Your task to perform on an android device: Go to Maps Image 0: 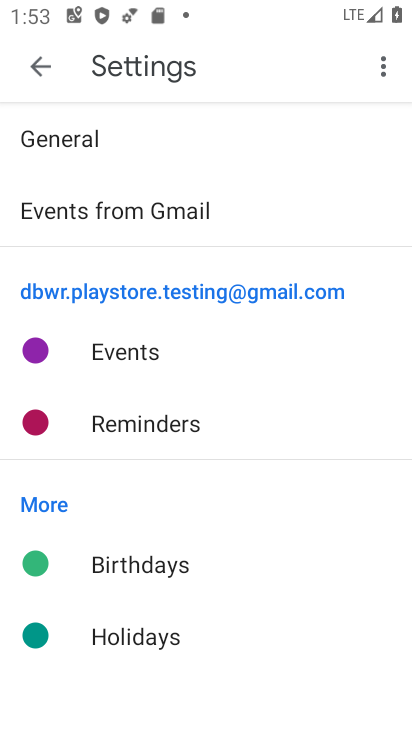
Step 0: press home button
Your task to perform on an android device: Go to Maps Image 1: 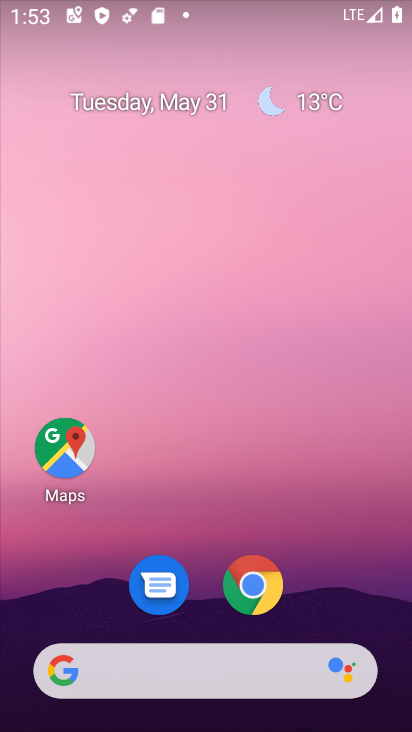
Step 1: click (69, 444)
Your task to perform on an android device: Go to Maps Image 2: 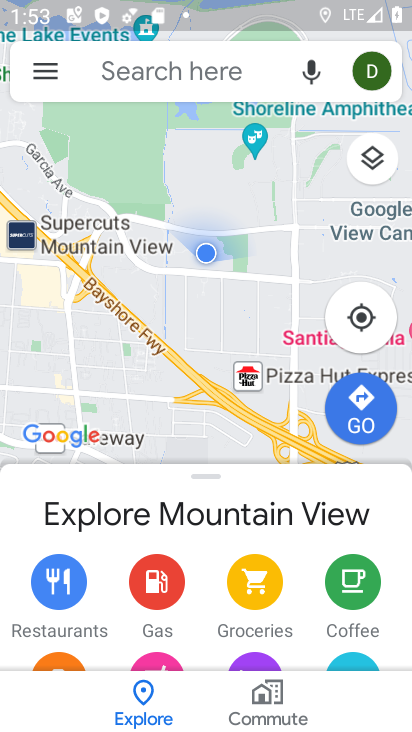
Step 2: task complete